Your task to perform on an android device: Open calendar and show me the fourth week of next month Image 0: 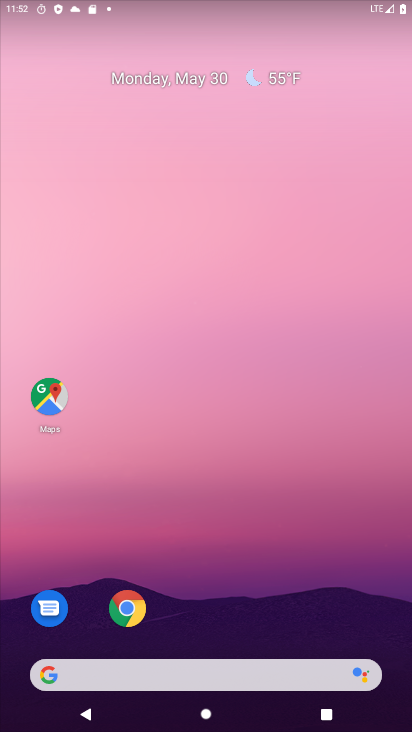
Step 0: drag from (285, 637) to (184, 6)
Your task to perform on an android device: Open calendar and show me the fourth week of next month Image 1: 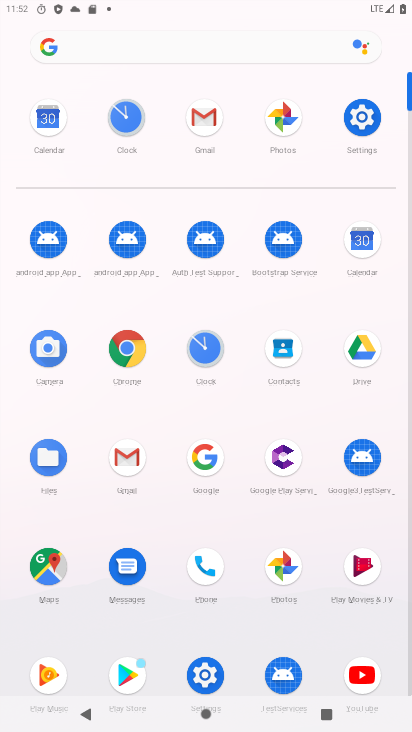
Step 1: click (36, 115)
Your task to perform on an android device: Open calendar and show me the fourth week of next month Image 2: 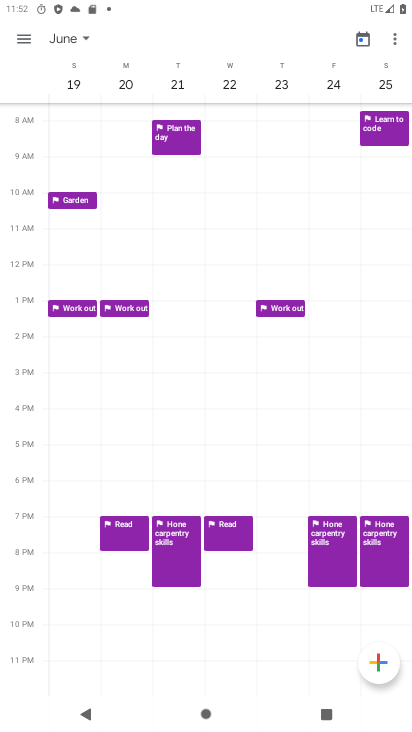
Step 2: task complete